Your task to perform on an android device: Go to battery settings Image 0: 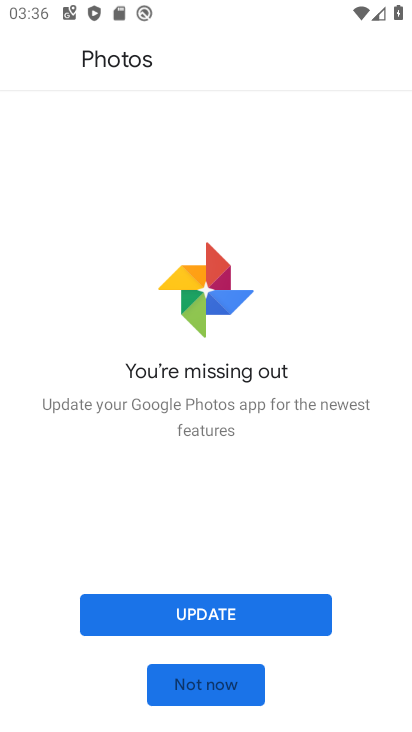
Step 0: press home button
Your task to perform on an android device: Go to battery settings Image 1: 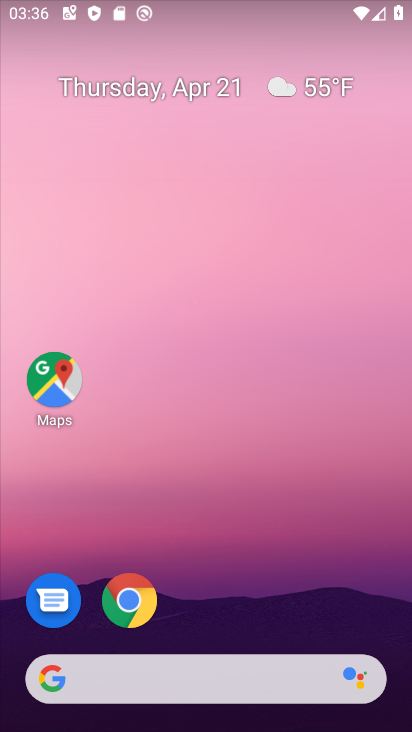
Step 1: drag from (280, 623) to (409, 72)
Your task to perform on an android device: Go to battery settings Image 2: 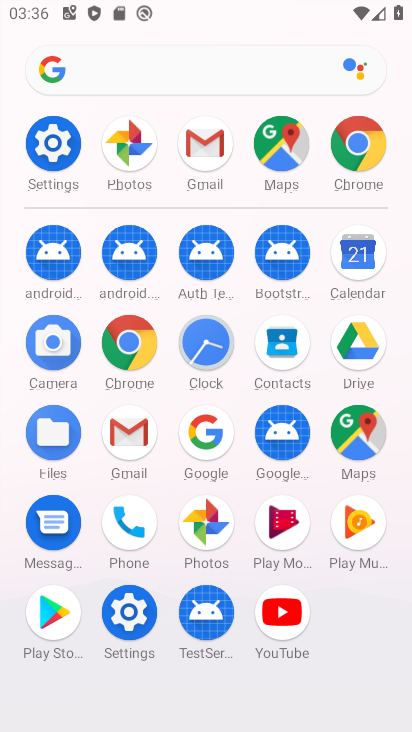
Step 2: click (40, 147)
Your task to perform on an android device: Go to battery settings Image 3: 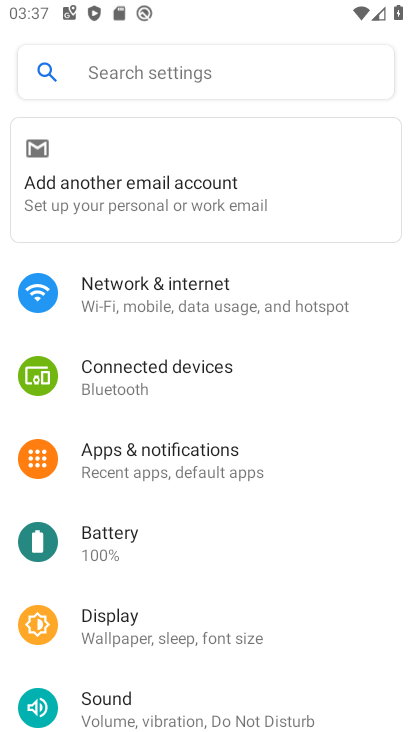
Step 3: click (123, 550)
Your task to perform on an android device: Go to battery settings Image 4: 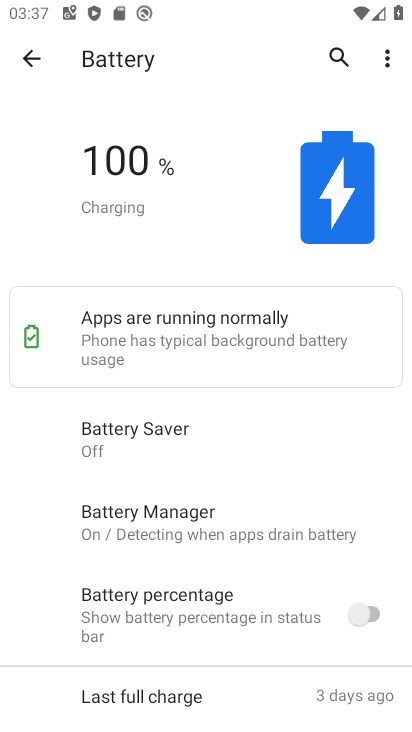
Step 4: task complete